Your task to perform on an android device: Search for Mexican restaurants on Maps Image 0: 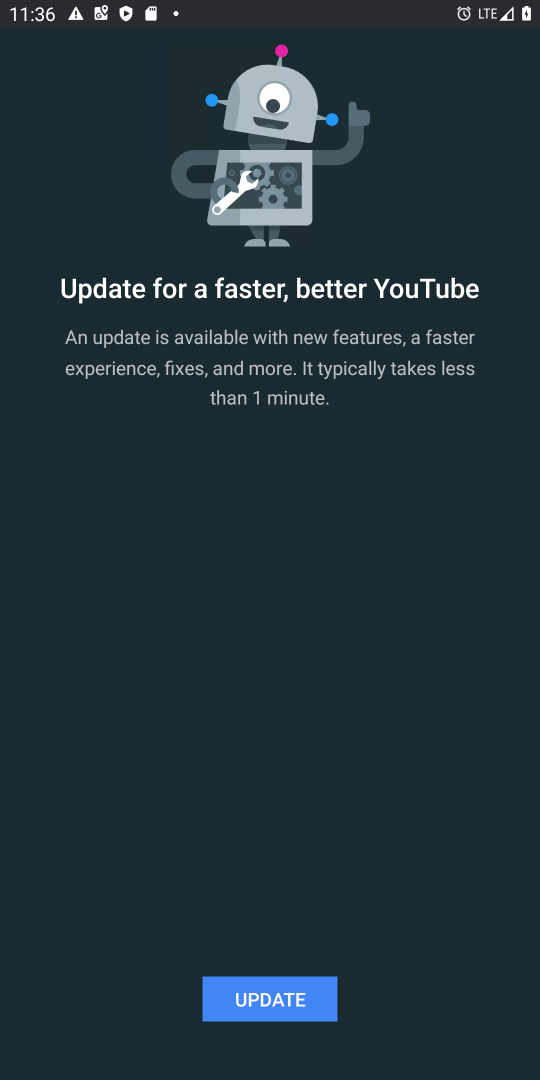
Step 0: press home button
Your task to perform on an android device: Search for Mexican restaurants on Maps Image 1: 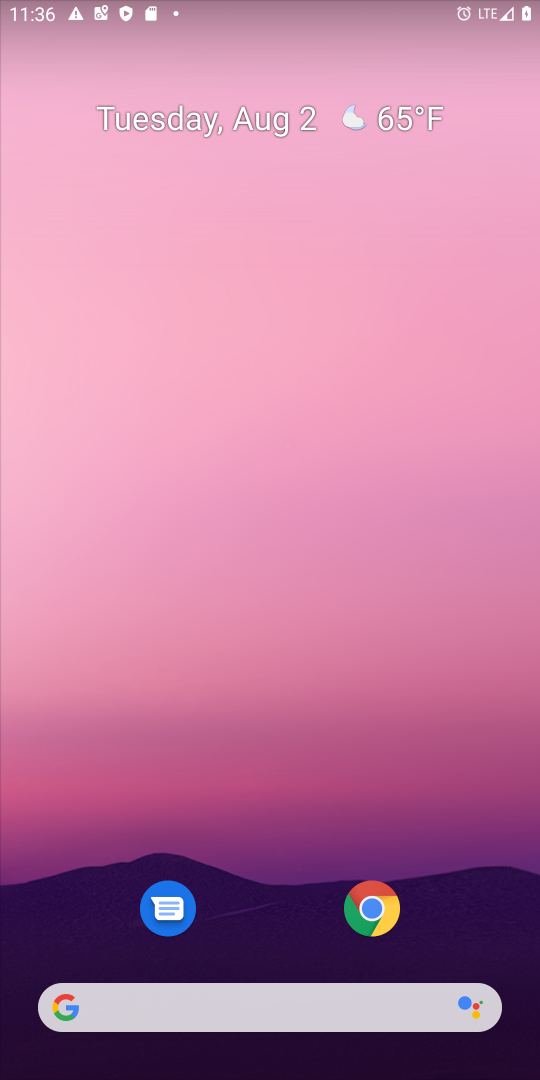
Step 1: drag from (264, 806) to (340, 65)
Your task to perform on an android device: Search for Mexican restaurants on Maps Image 2: 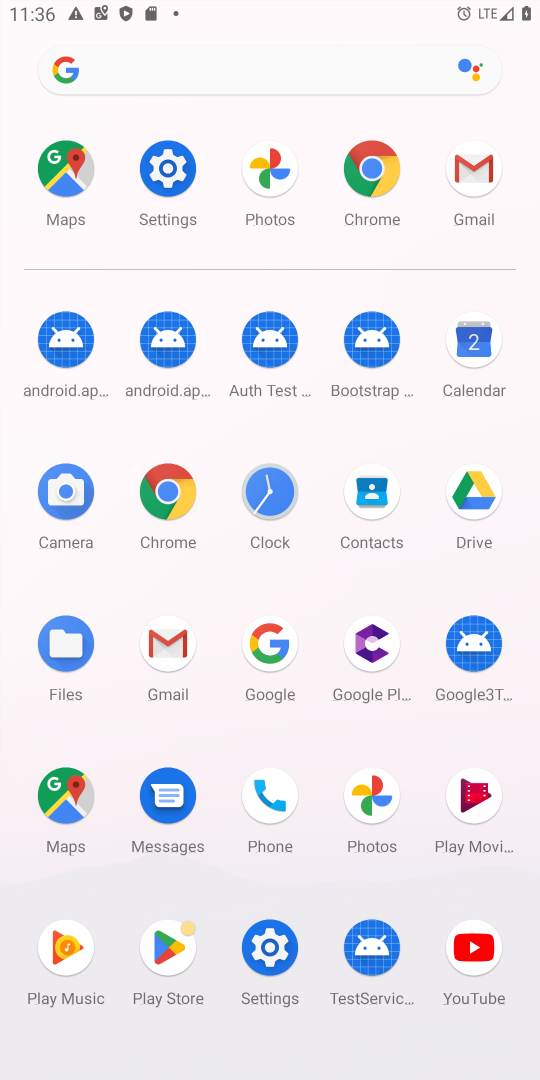
Step 2: click (73, 786)
Your task to perform on an android device: Search for Mexican restaurants on Maps Image 3: 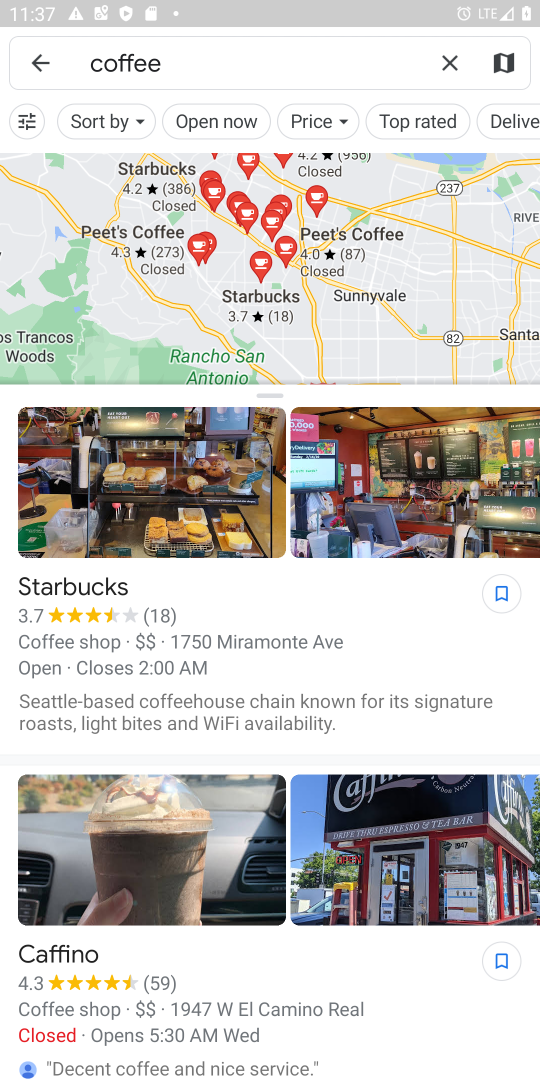
Step 3: click (440, 61)
Your task to perform on an android device: Search for Mexican restaurants on Maps Image 4: 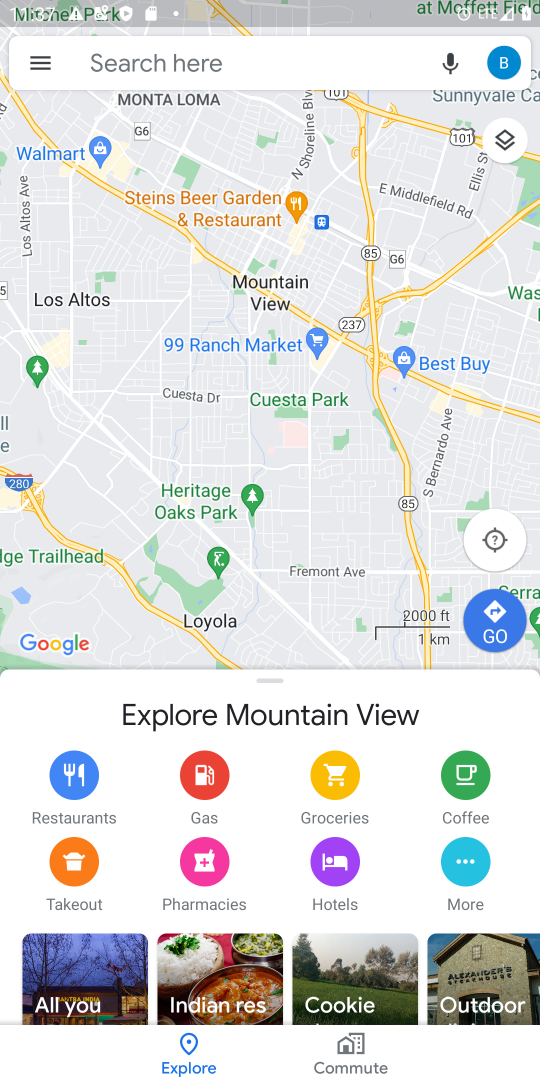
Step 4: click (319, 61)
Your task to perform on an android device: Search for Mexican restaurants on Maps Image 5: 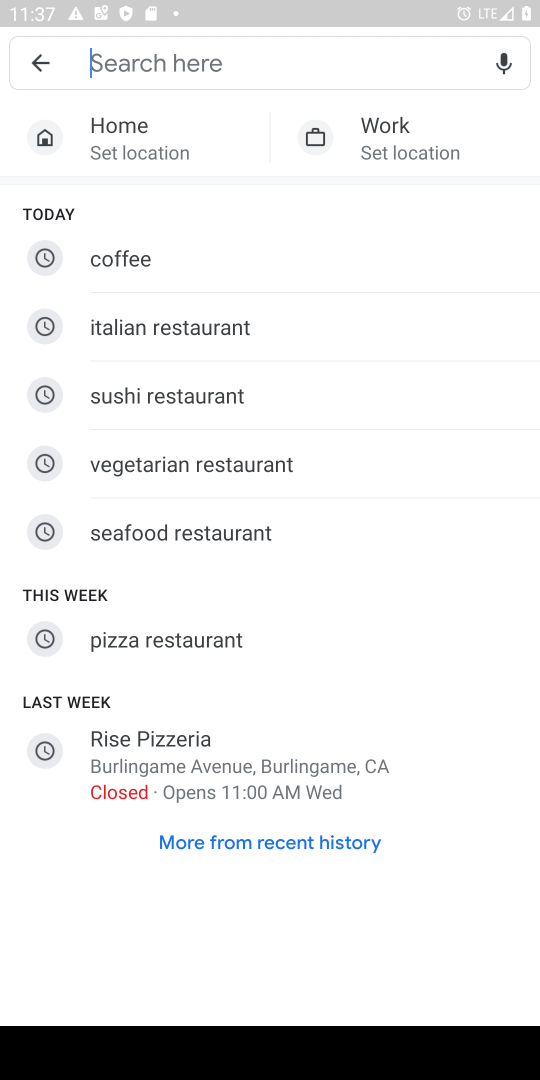
Step 5: type "Mexican restaurants"
Your task to perform on an android device: Search for Mexican restaurants on Maps Image 6: 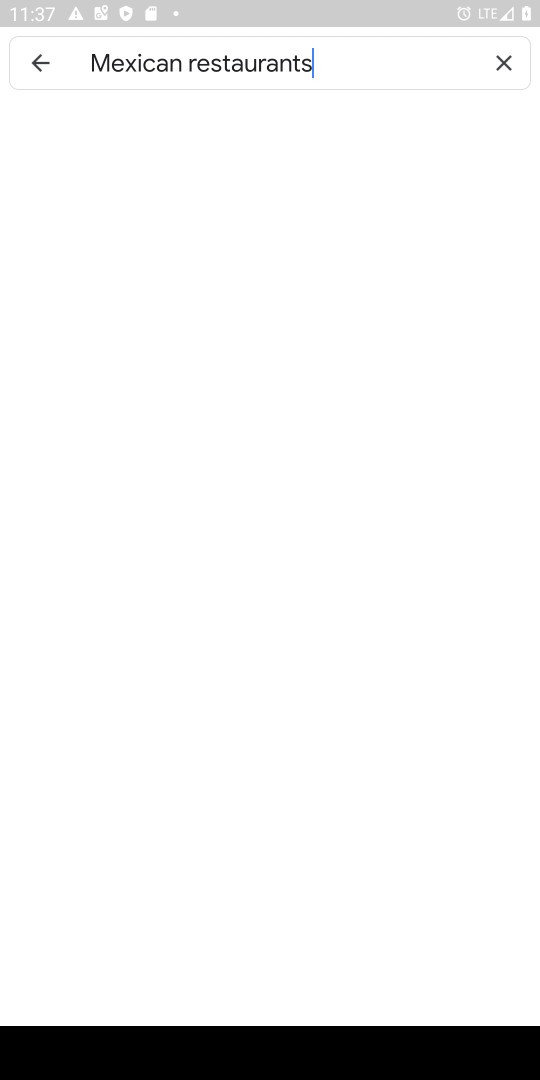
Step 6: type ""
Your task to perform on an android device: Search for Mexican restaurants on Maps Image 7: 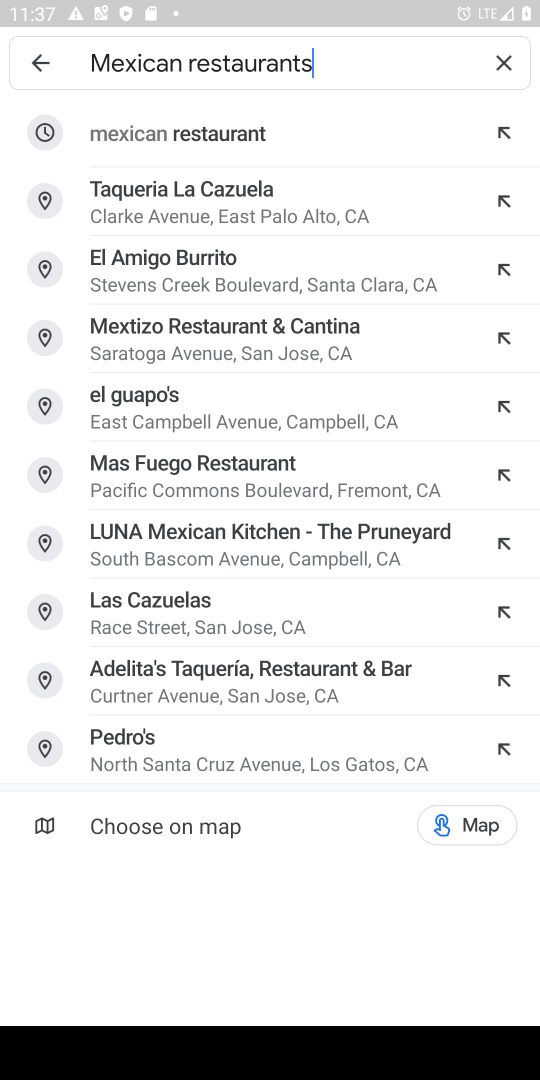
Step 7: click (275, 128)
Your task to perform on an android device: Search for Mexican restaurants on Maps Image 8: 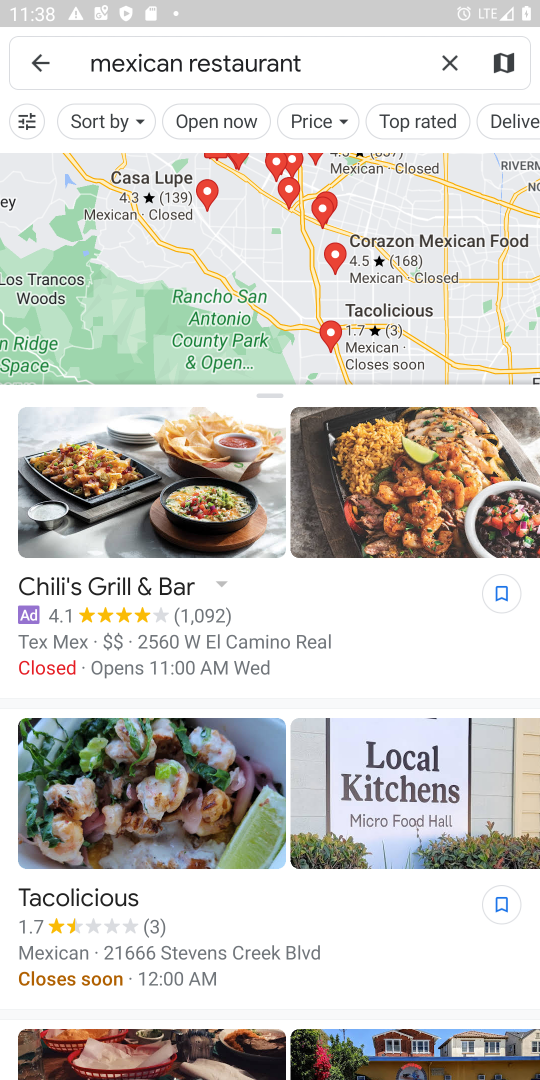
Step 8: task complete